Your task to perform on an android device: Open calendar and show me the second week of next month Image 0: 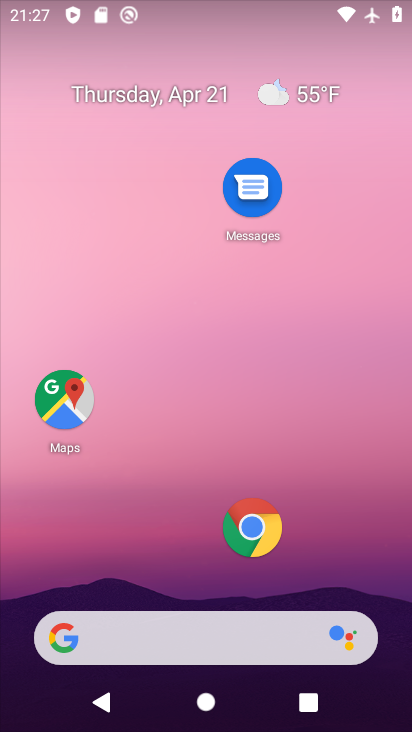
Step 0: press home button
Your task to perform on an android device: Open calendar and show me the second week of next month Image 1: 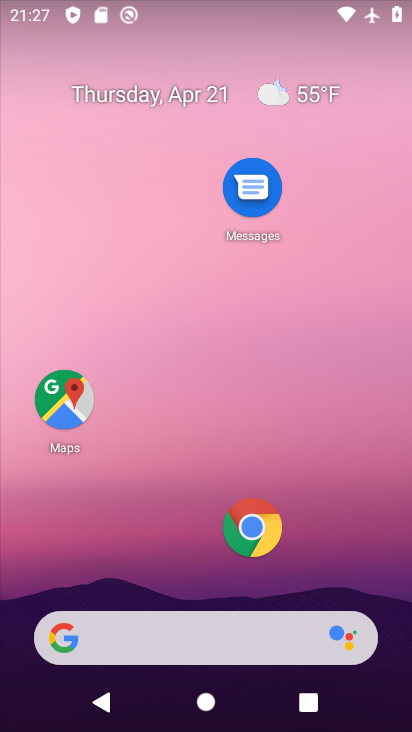
Step 1: drag from (137, 636) to (294, 80)
Your task to perform on an android device: Open calendar and show me the second week of next month Image 2: 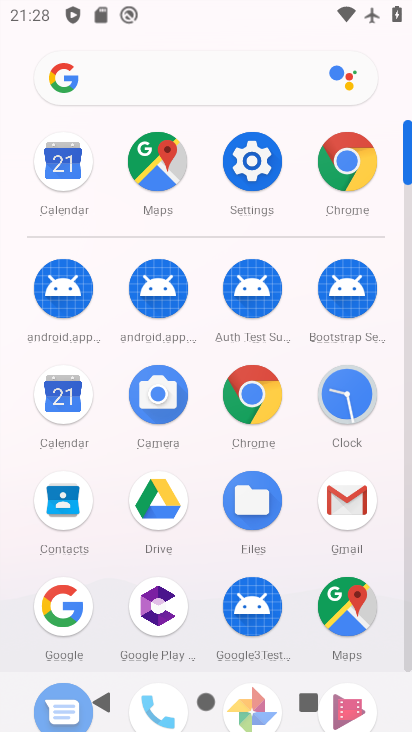
Step 2: click (68, 387)
Your task to perform on an android device: Open calendar and show me the second week of next month Image 3: 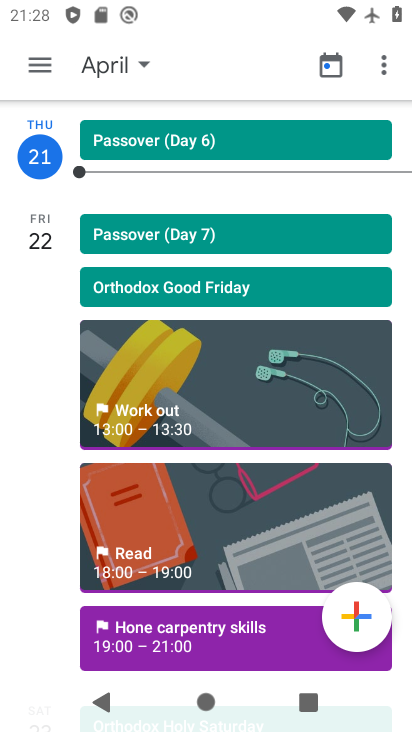
Step 3: click (86, 68)
Your task to perform on an android device: Open calendar and show me the second week of next month Image 4: 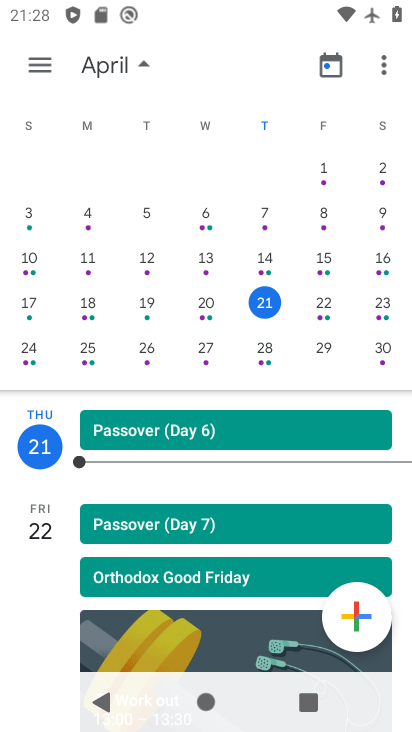
Step 4: drag from (318, 283) to (4, 298)
Your task to perform on an android device: Open calendar and show me the second week of next month Image 5: 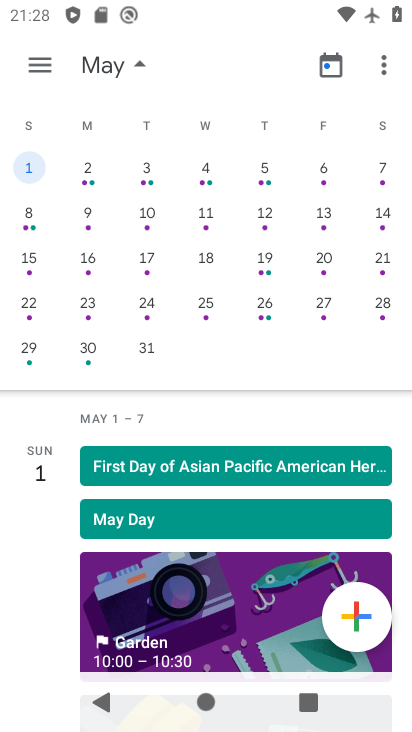
Step 5: click (31, 217)
Your task to perform on an android device: Open calendar and show me the second week of next month Image 6: 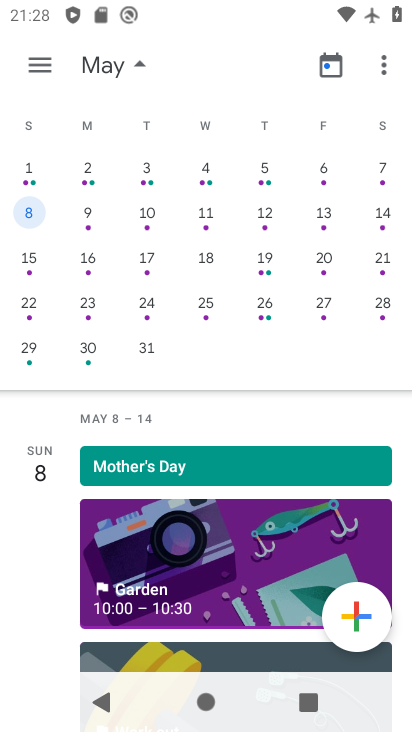
Step 6: click (50, 64)
Your task to perform on an android device: Open calendar and show me the second week of next month Image 7: 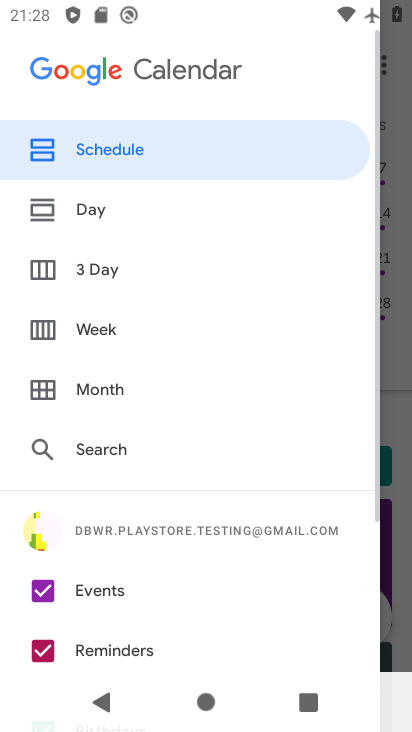
Step 7: click (101, 328)
Your task to perform on an android device: Open calendar and show me the second week of next month Image 8: 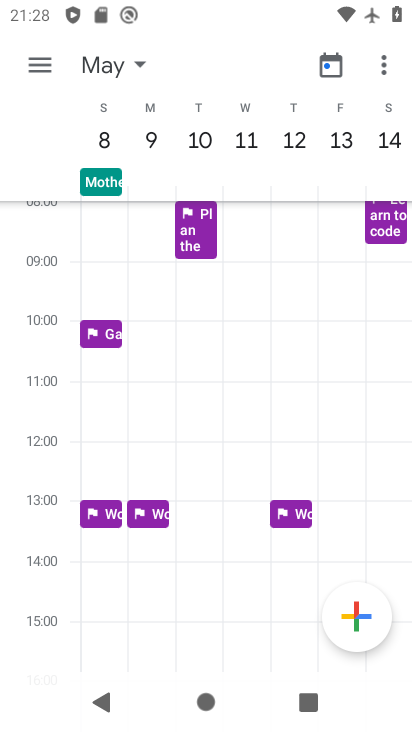
Step 8: task complete